Your task to perform on an android device: Open eBay Image 0: 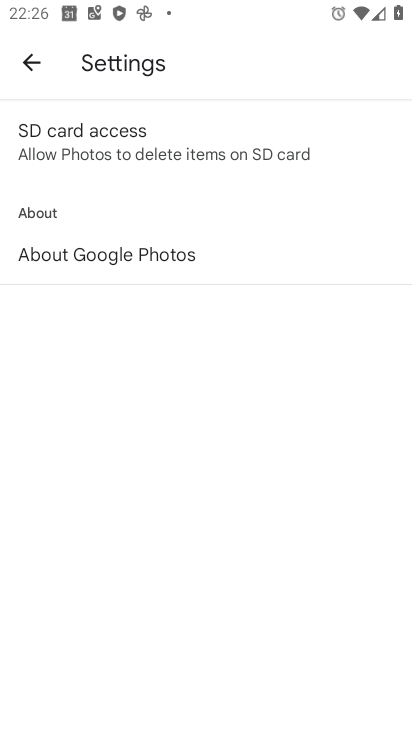
Step 0: press home button
Your task to perform on an android device: Open eBay Image 1: 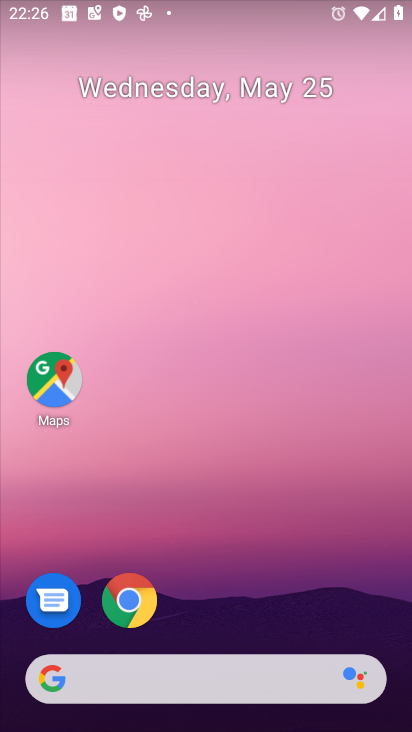
Step 1: drag from (297, 533) to (301, 174)
Your task to perform on an android device: Open eBay Image 2: 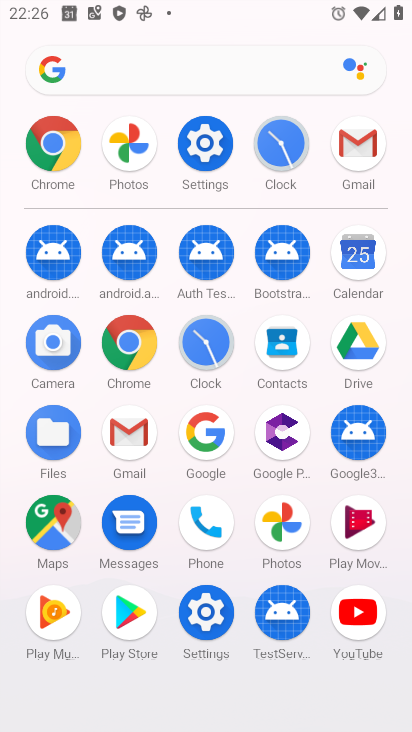
Step 2: click (129, 349)
Your task to perform on an android device: Open eBay Image 3: 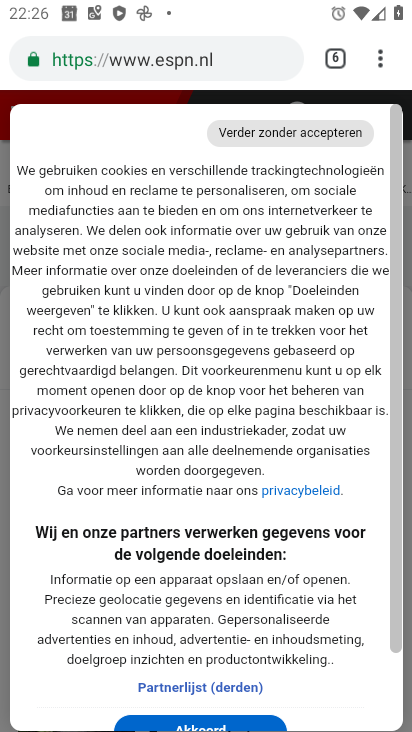
Step 3: click (189, 73)
Your task to perform on an android device: Open eBay Image 4: 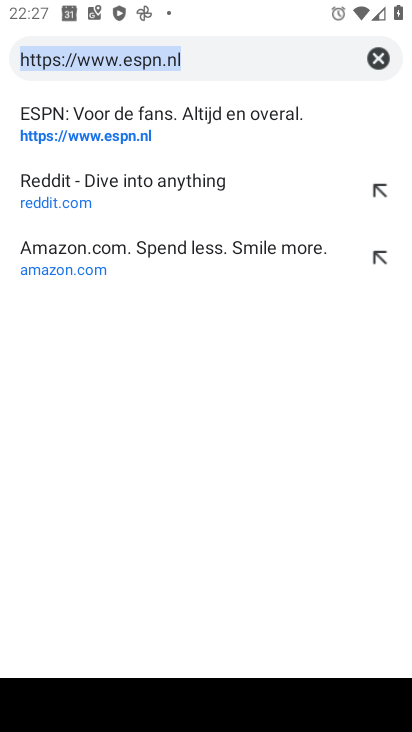
Step 4: click (399, 54)
Your task to perform on an android device: Open eBay Image 5: 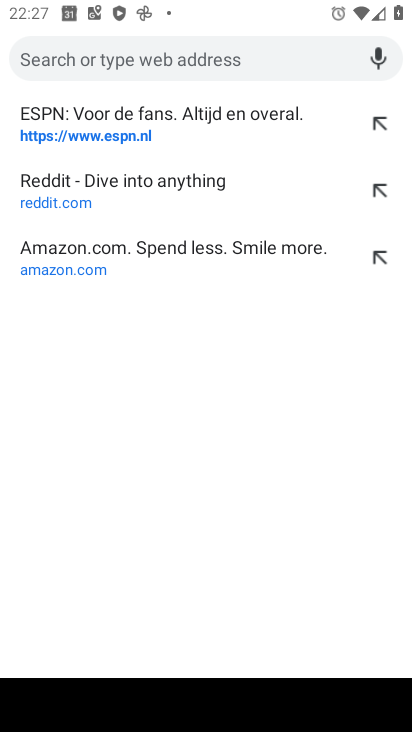
Step 5: type "ebay"
Your task to perform on an android device: Open eBay Image 6: 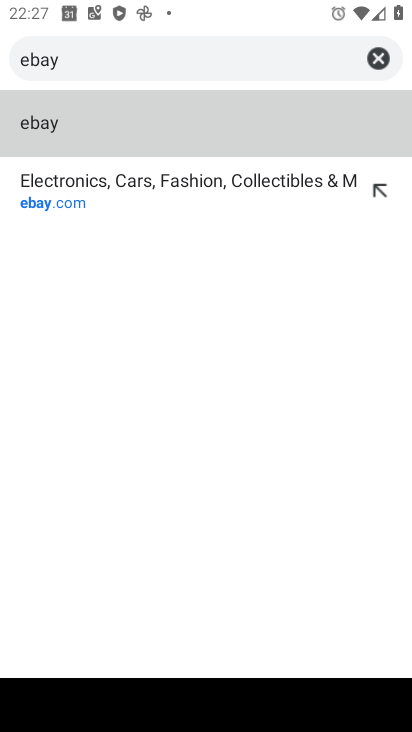
Step 6: click (150, 200)
Your task to perform on an android device: Open eBay Image 7: 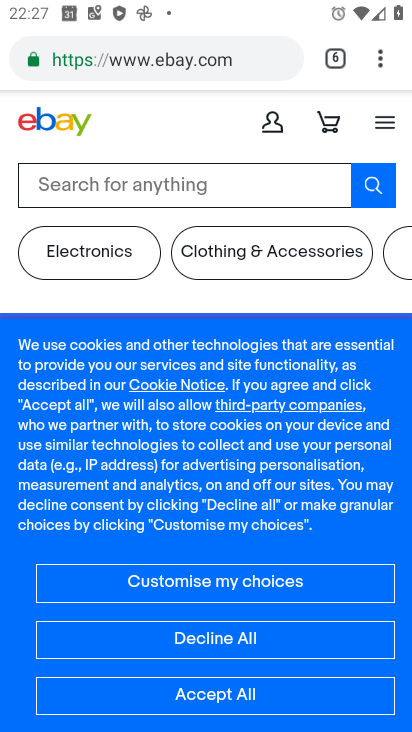
Step 7: task complete